Your task to perform on an android device: refresh tabs in the chrome app Image 0: 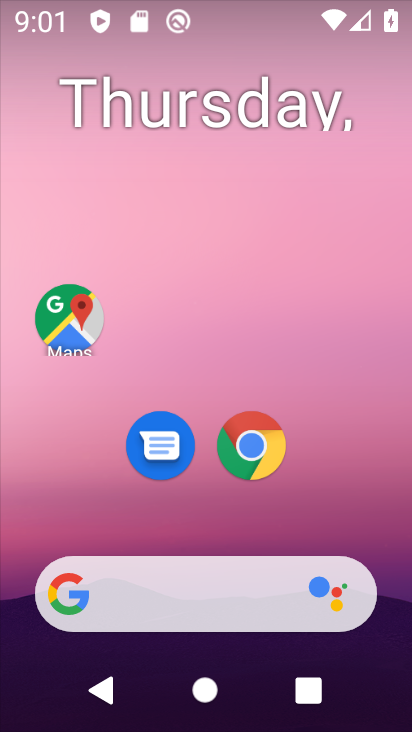
Step 0: click (252, 455)
Your task to perform on an android device: refresh tabs in the chrome app Image 1: 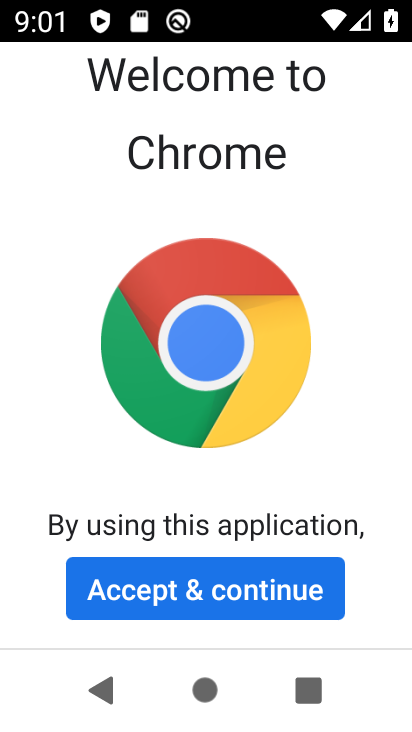
Step 1: click (301, 601)
Your task to perform on an android device: refresh tabs in the chrome app Image 2: 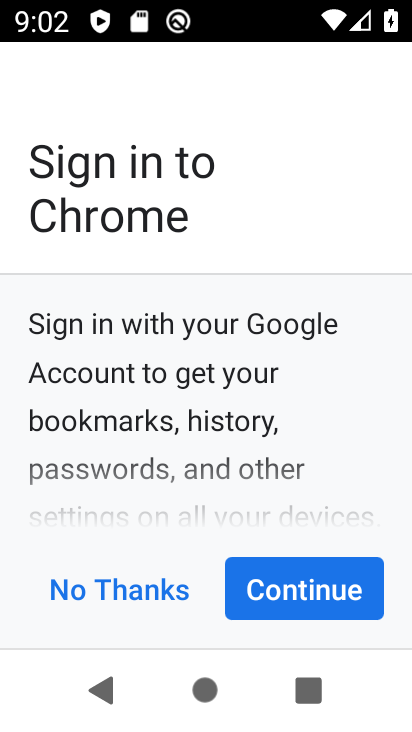
Step 2: click (82, 589)
Your task to perform on an android device: refresh tabs in the chrome app Image 3: 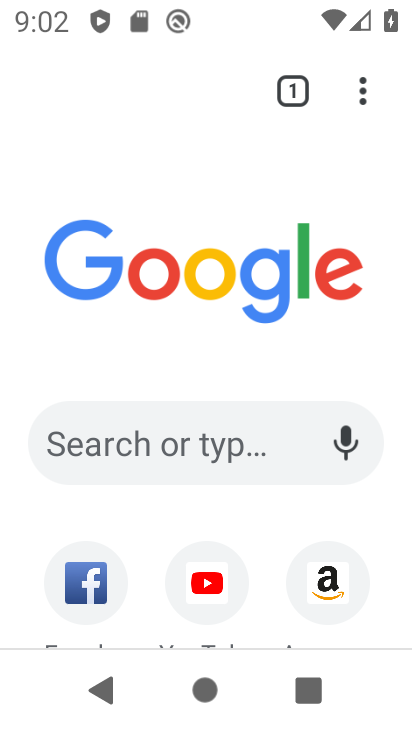
Step 3: click (366, 94)
Your task to perform on an android device: refresh tabs in the chrome app Image 4: 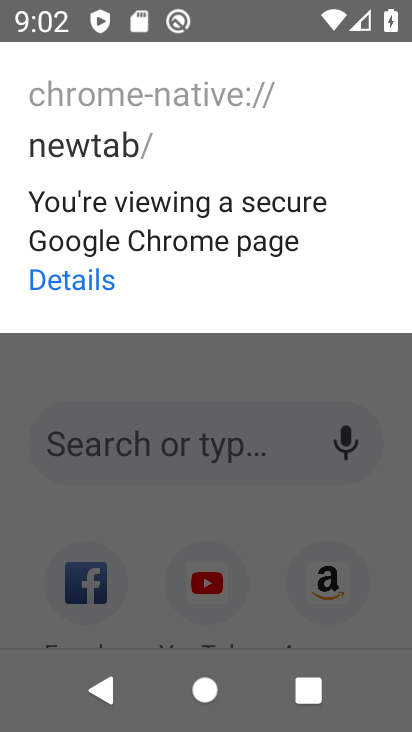
Step 4: press home button
Your task to perform on an android device: refresh tabs in the chrome app Image 5: 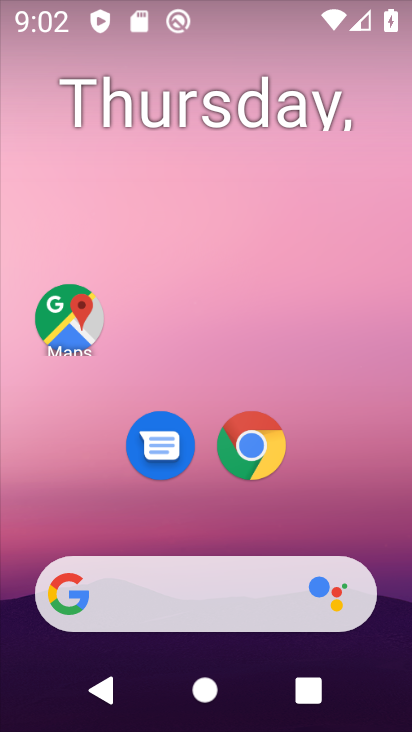
Step 5: click (247, 444)
Your task to perform on an android device: refresh tabs in the chrome app Image 6: 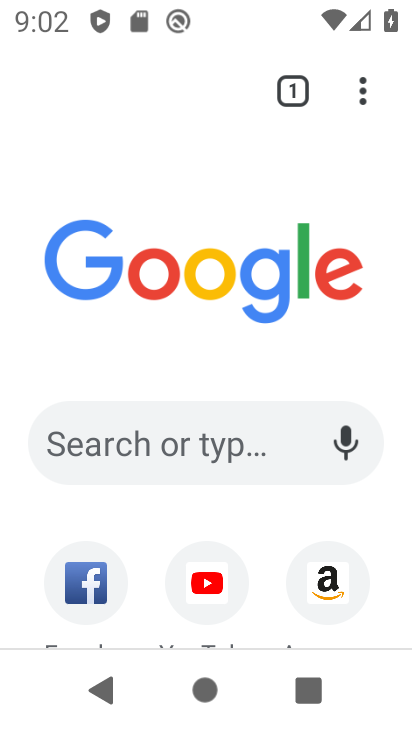
Step 6: click (352, 92)
Your task to perform on an android device: refresh tabs in the chrome app Image 7: 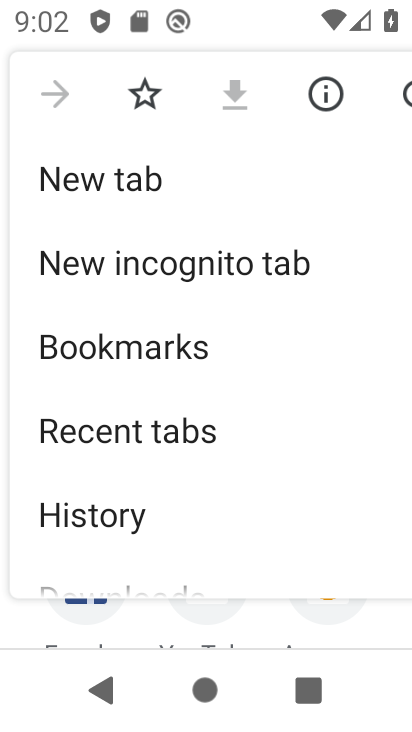
Step 7: click (405, 94)
Your task to perform on an android device: refresh tabs in the chrome app Image 8: 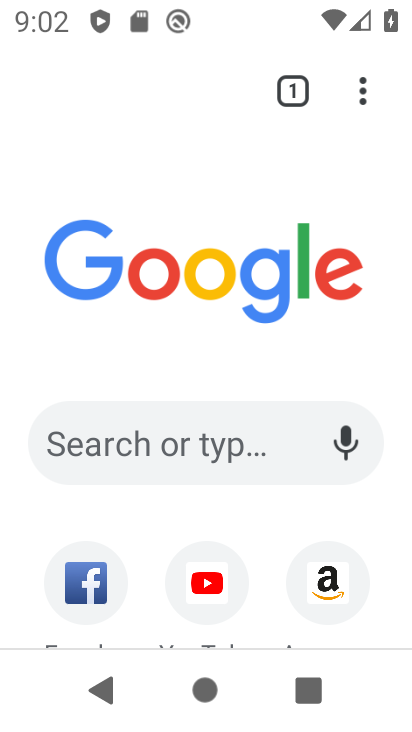
Step 8: click (359, 95)
Your task to perform on an android device: refresh tabs in the chrome app Image 9: 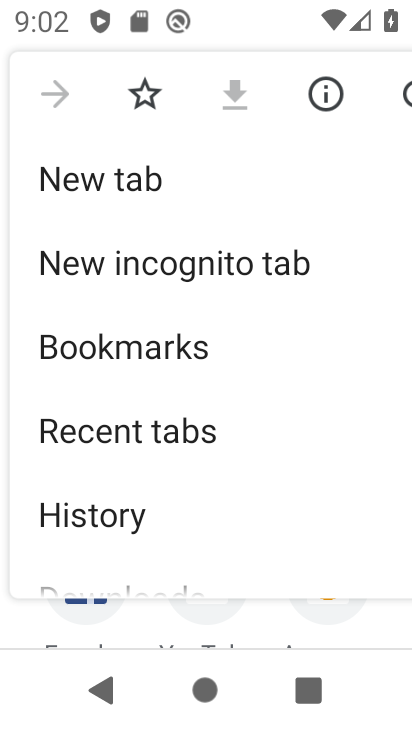
Step 9: click (407, 101)
Your task to perform on an android device: refresh tabs in the chrome app Image 10: 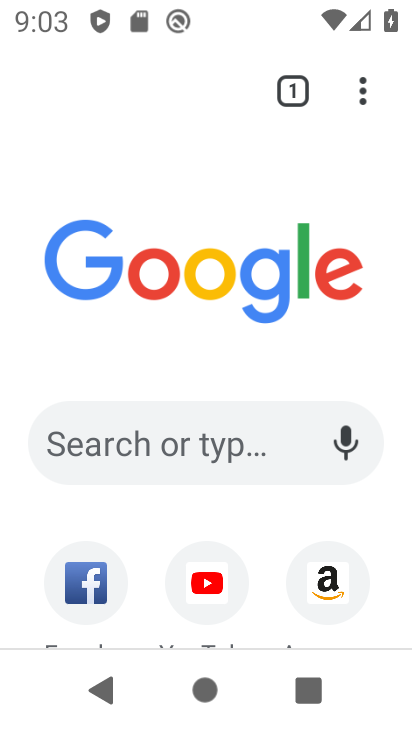
Step 10: task complete